Your task to perform on an android device: Add logitech g903 to the cart on ebay.com Image 0: 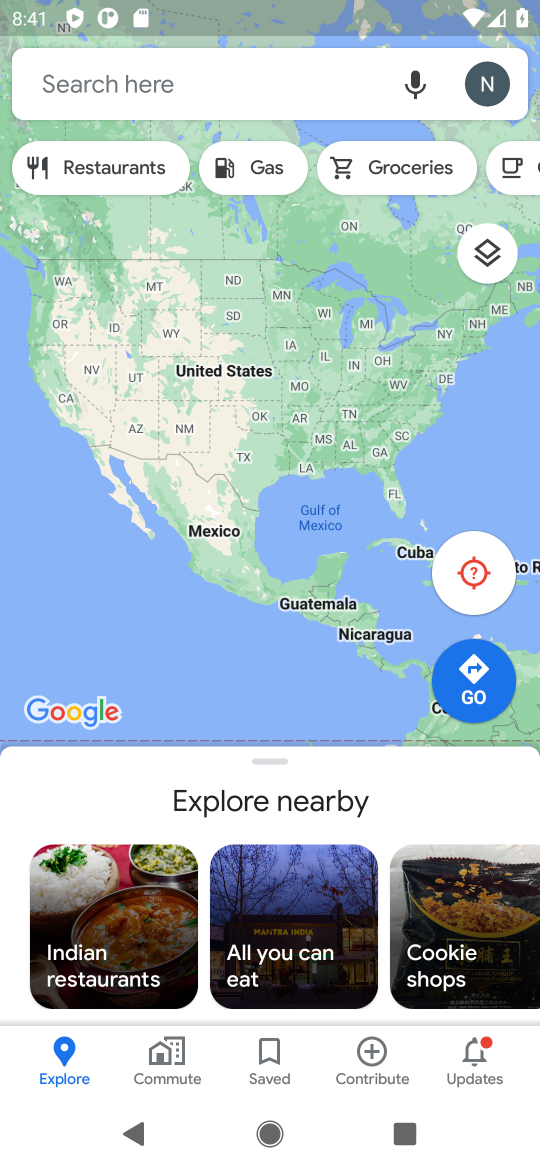
Step 0: press home button
Your task to perform on an android device: Add logitech g903 to the cart on ebay.com Image 1: 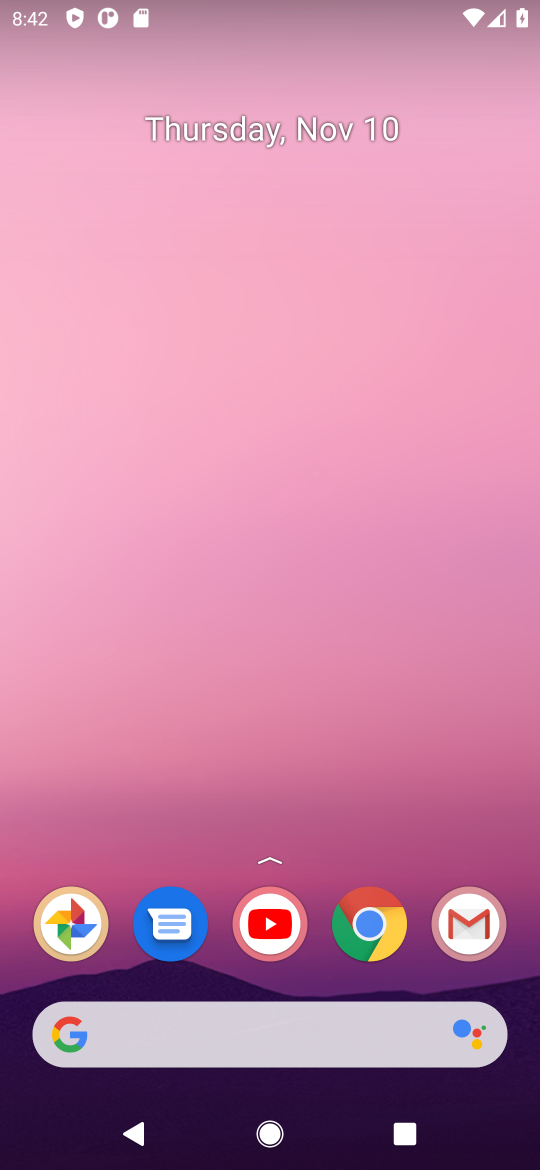
Step 1: click (373, 923)
Your task to perform on an android device: Add logitech g903 to the cart on ebay.com Image 2: 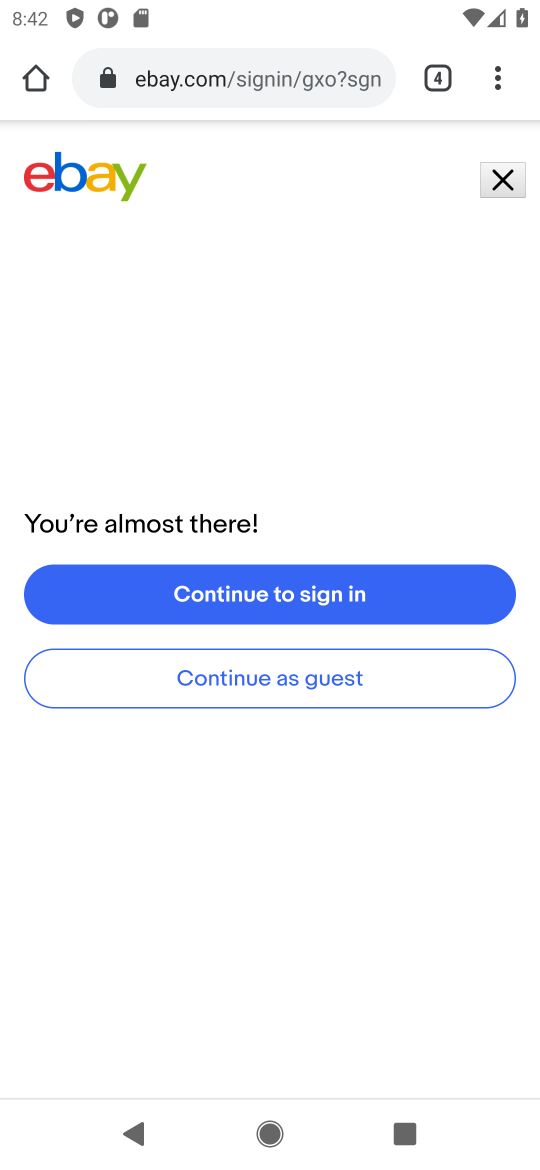
Step 2: click (504, 179)
Your task to perform on an android device: Add logitech g903 to the cart on ebay.com Image 3: 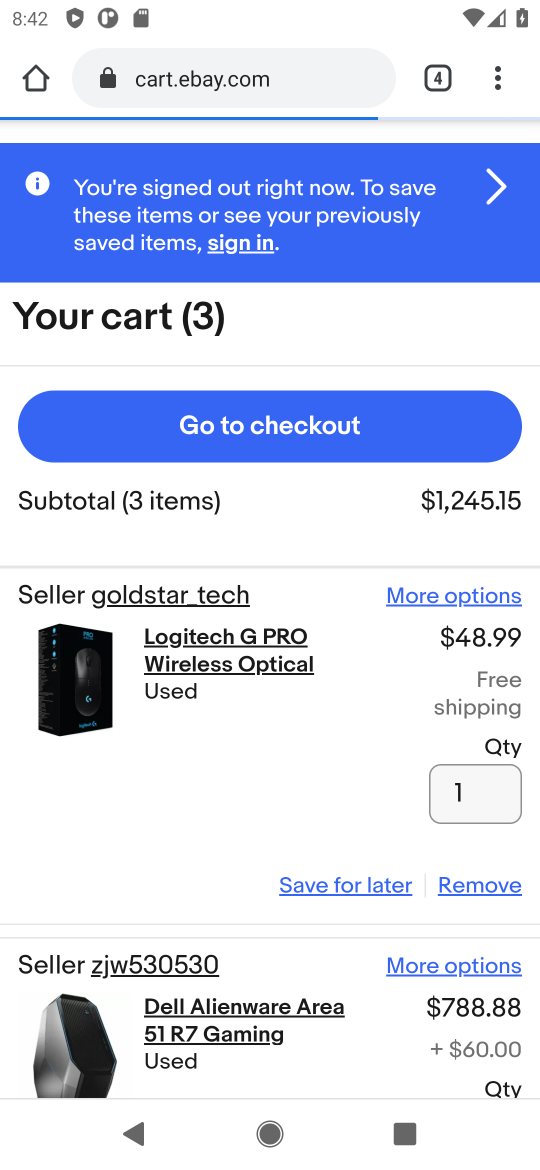
Step 3: drag from (268, 393) to (284, 841)
Your task to perform on an android device: Add logitech g903 to the cart on ebay.com Image 4: 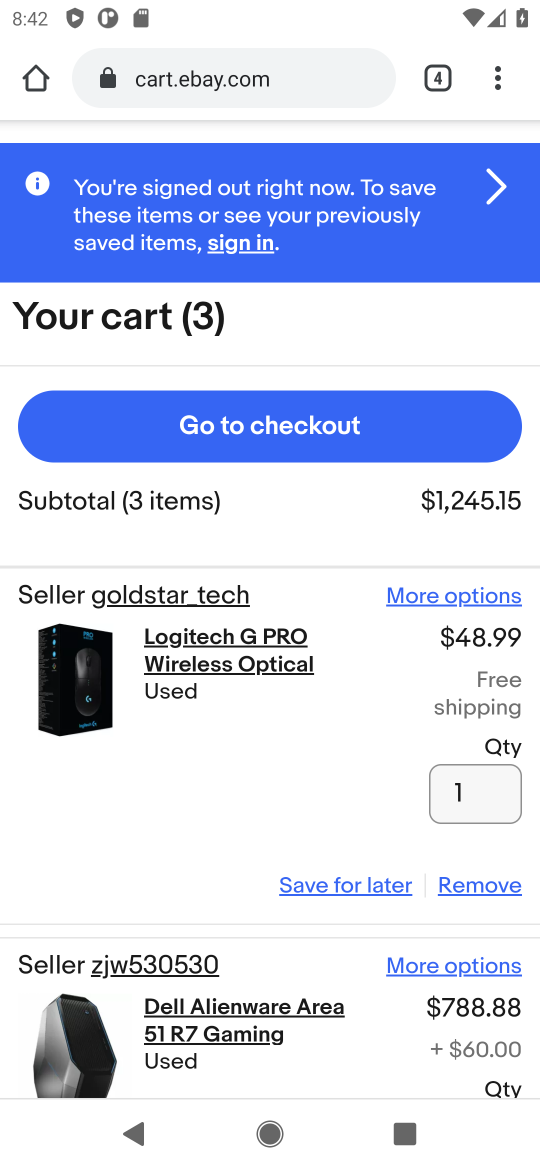
Step 4: click (283, 235)
Your task to perform on an android device: Add logitech g903 to the cart on ebay.com Image 5: 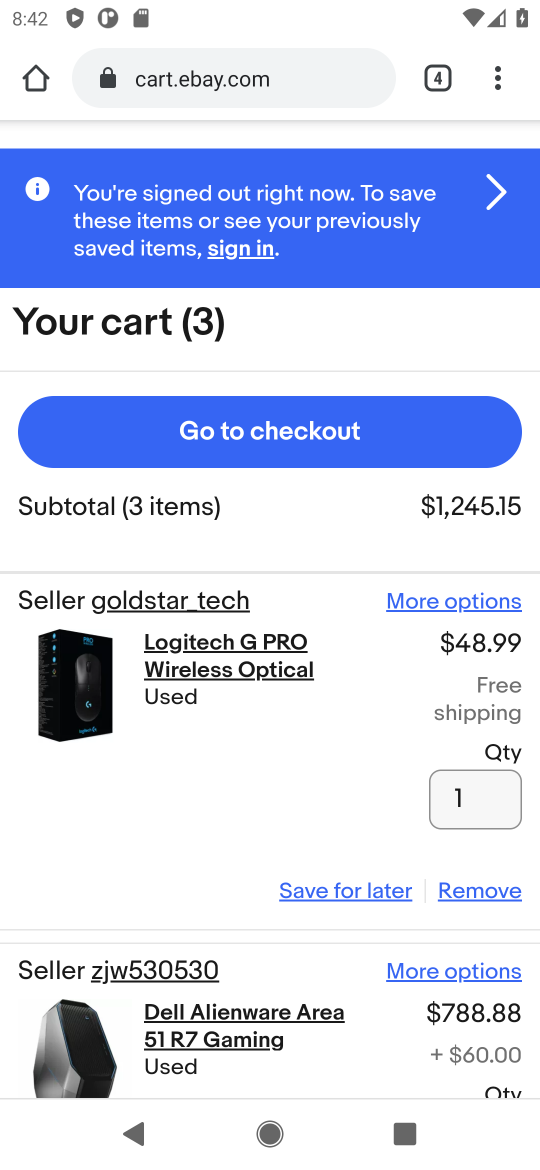
Step 5: drag from (431, 231) to (446, 340)
Your task to perform on an android device: Add logitech g903 to the cart on ebay.com Image 6: 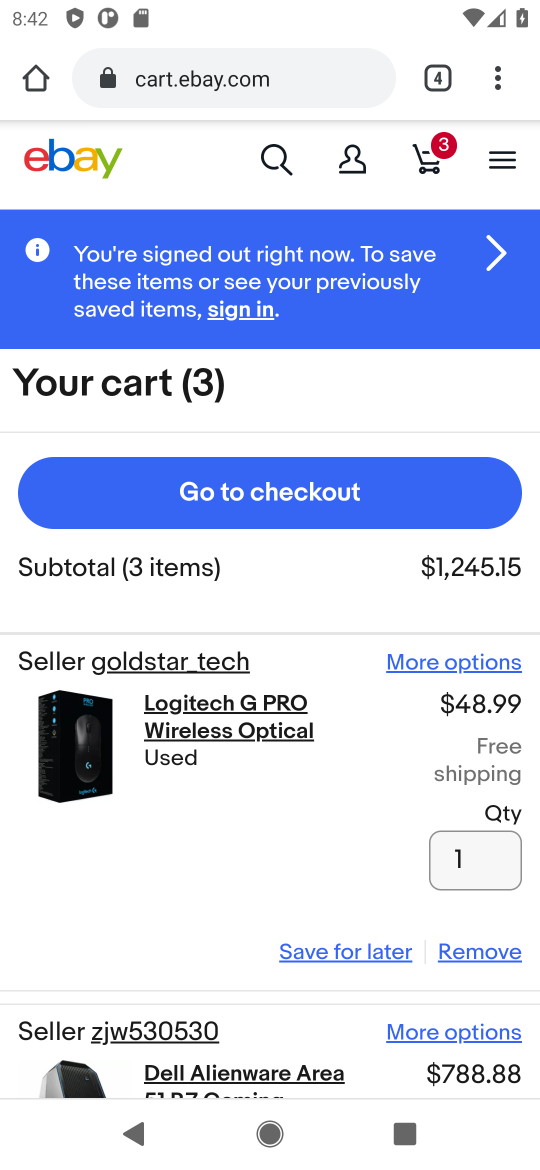
Step 6: click (277, 158)
Your task to perform on an android device: Add logitech g903 to the cart on ebay.com Image 7: 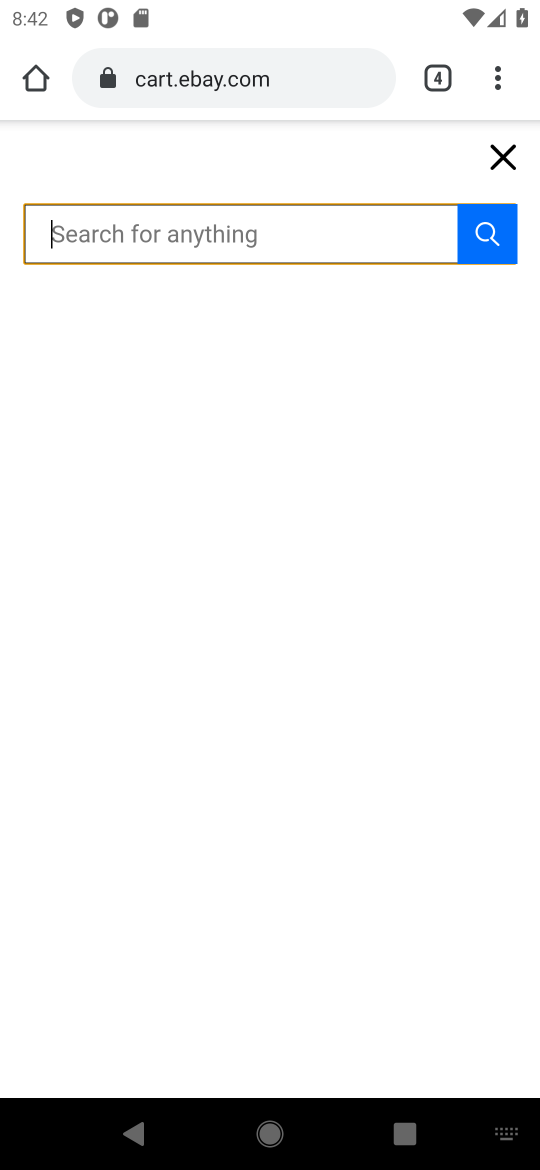
Step 7: type "logitech g903"
Your task to perform on an android device: Add logitech g903 to the cart on ebay.com Image 8: 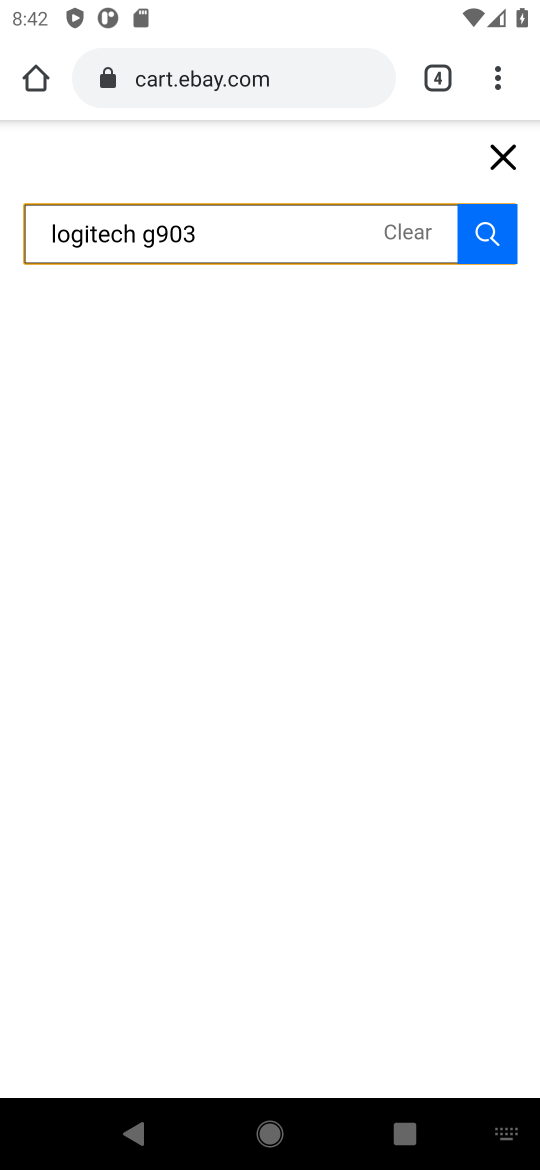
Step 8: click (489, 234)
Your task to perform on an android device: Add logitech g903 to the cart on ebay.com Image 9: 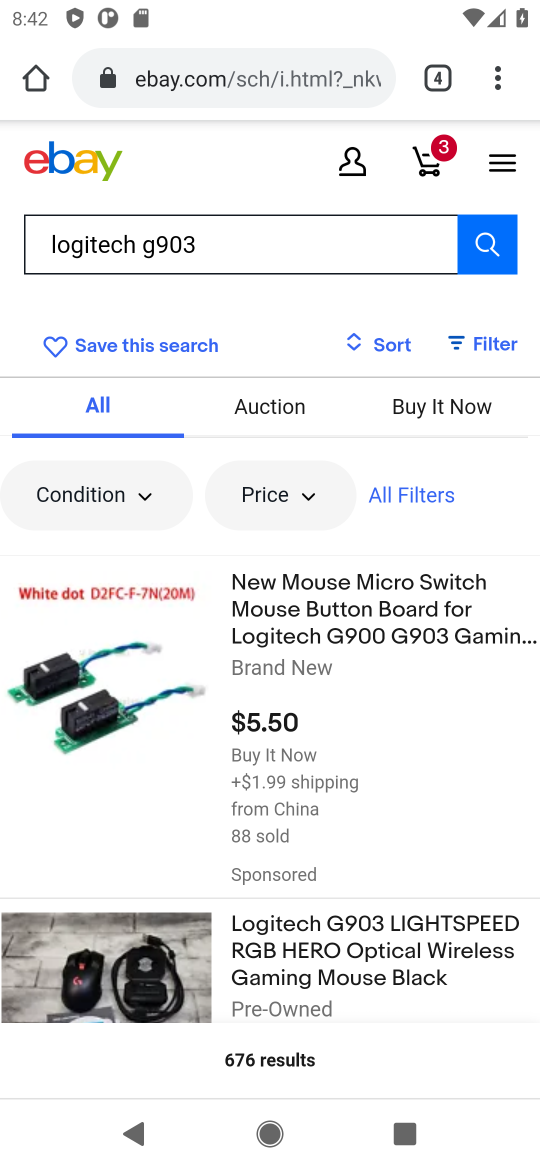
Step 9: drag from (295, 921) to (291, 563)
Your task to perform on an android device: Add logitech g903 to the cart on ebay.com Image 10: 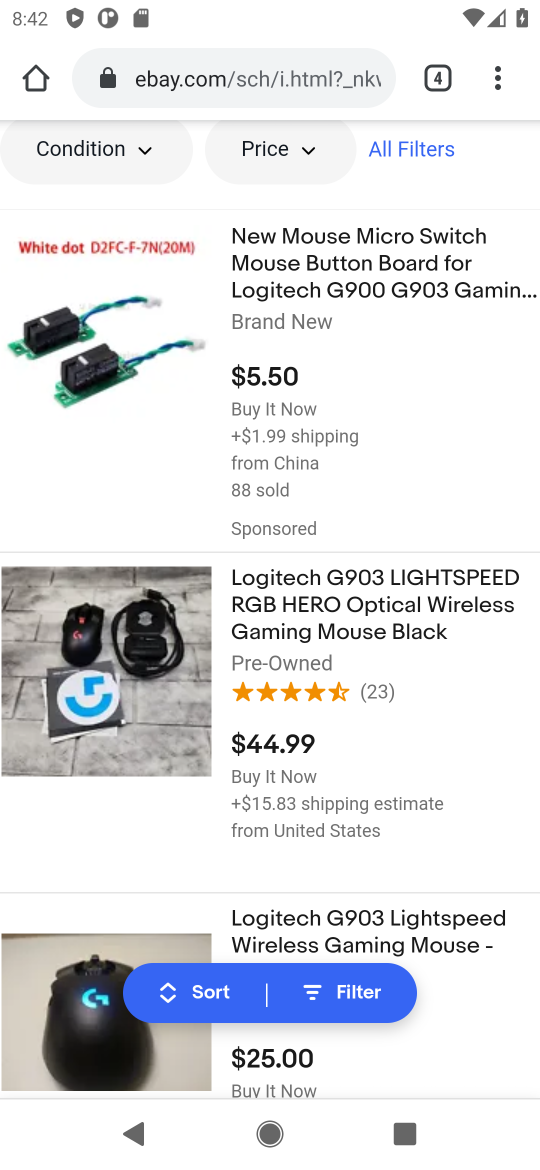
Step 10: click (159, 697)
Your task to perform on an android device: Add logitech g903 to the cart on ebay.com Image 11: 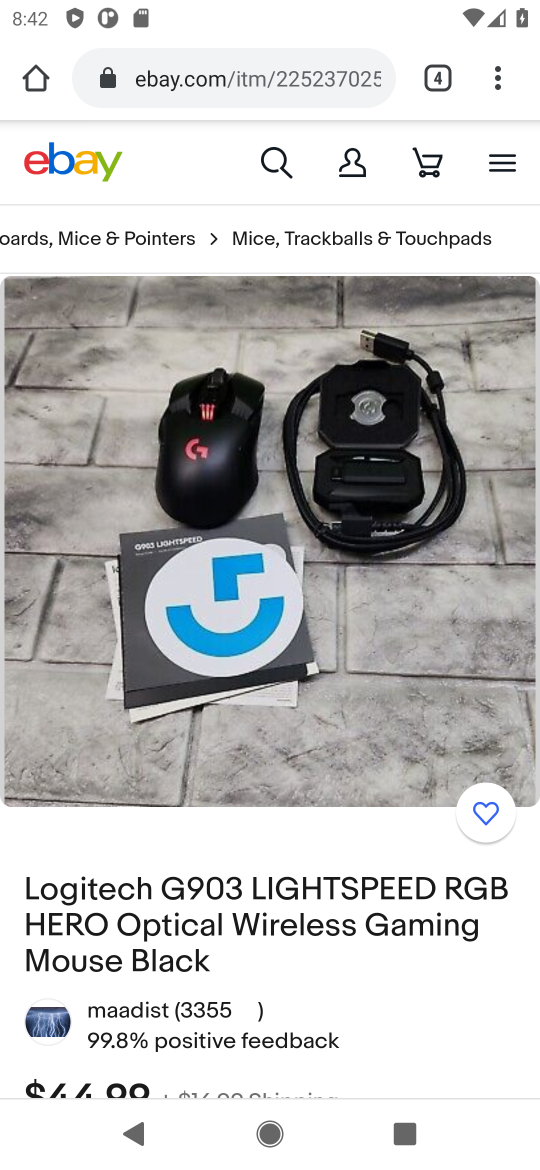
Step 11: drag from (275, 727) to (229, 351)
Your task to perform on an android device: Add logitech g903 to the cart on ebay.com Image 12: 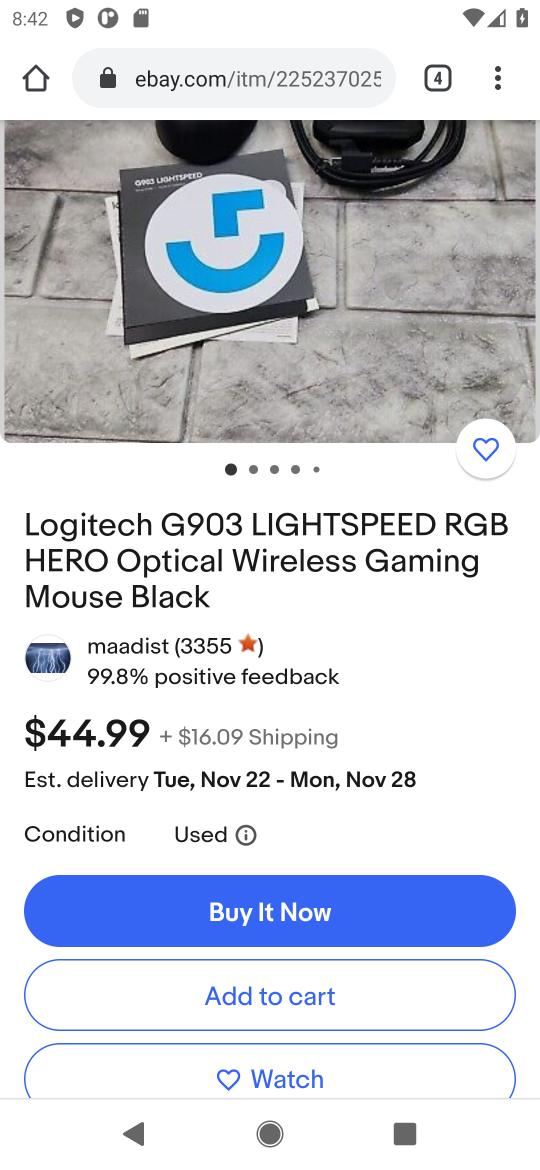
Step 12: click (274, 989)
Your task to perform on an android device: Add logitech g903 to the cart on ebay.com Image 13: 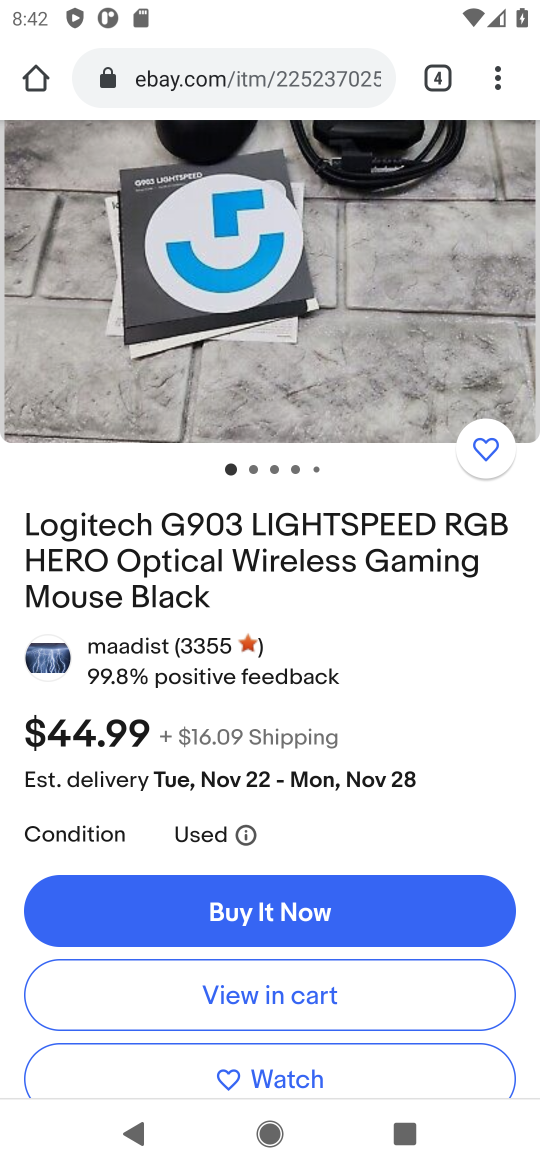
Step 13: task complete